Your task to perform on an android device: Open wifi settings Image 0: 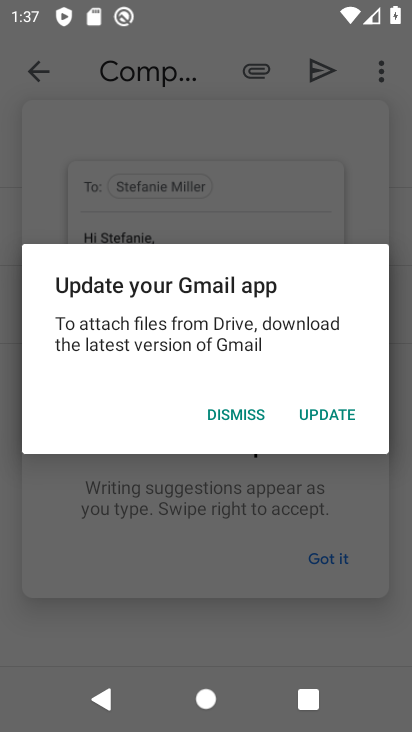
Step 0: press home button
Your task to perform on an android device: Open wifi settings Image 1: 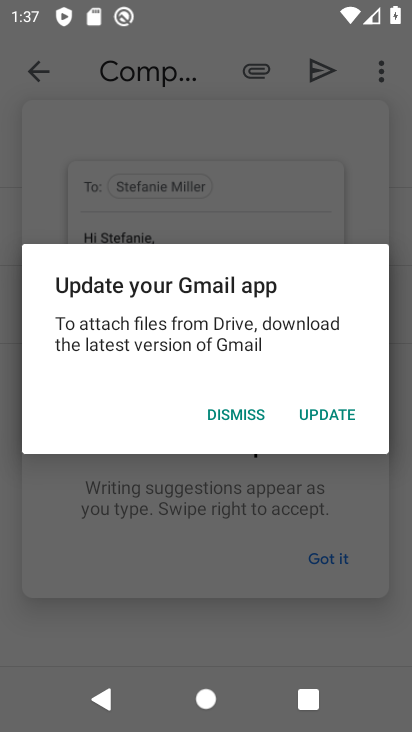
Step 1: drag from (163, 563) to (147, 33)
Your task to perform on an android device: Open wifi settings Image 2: 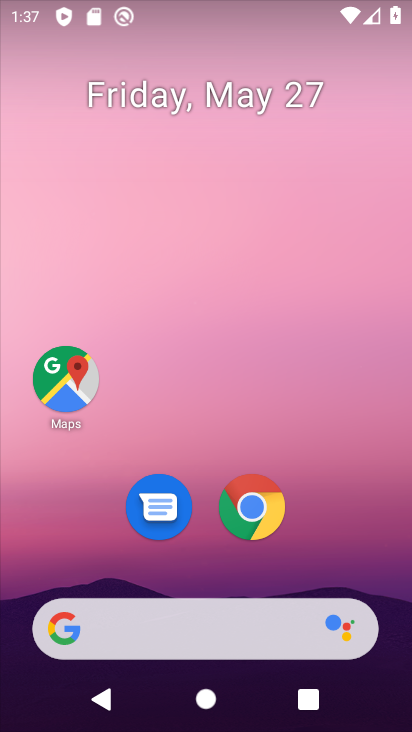
Step 2: drag from (207, 554) to (244, 153)
Your task to perform on an android device: Open wifi settings Image 3: 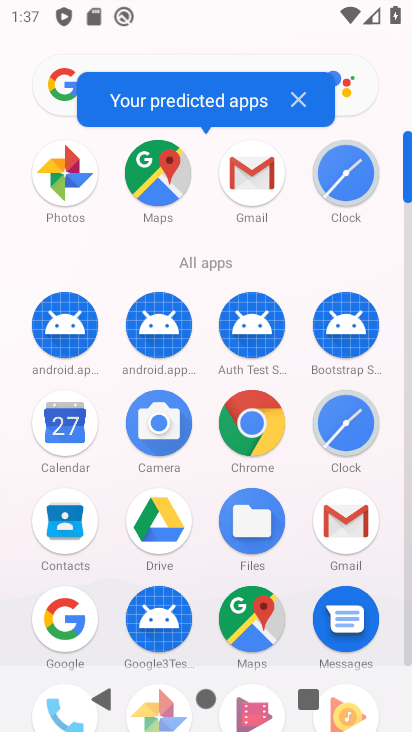
Step 3: drag from (182, 568) to (237, 211)
Your task to perform on an android device: Open wifi settings Image 4: 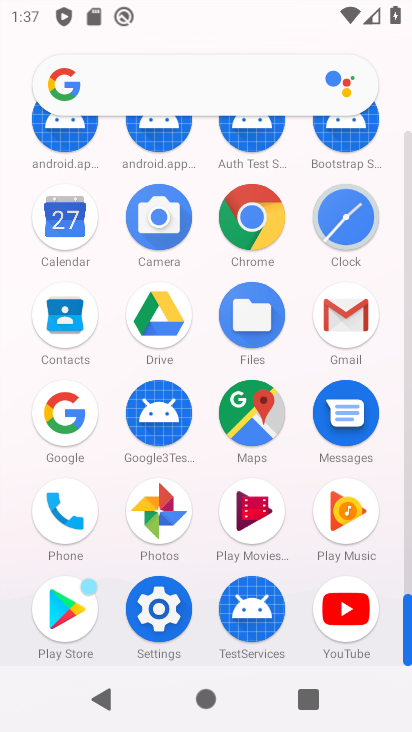
Step 4: click (147, 632)
Your task to perform on an android device: Open wifi settings Image 5: 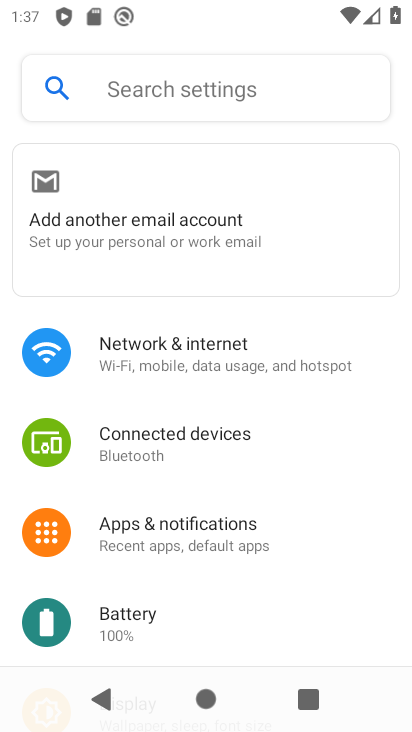
Step 5: click (119, 346)
Your task to perform on an android device: Open wifi settings Image 6: 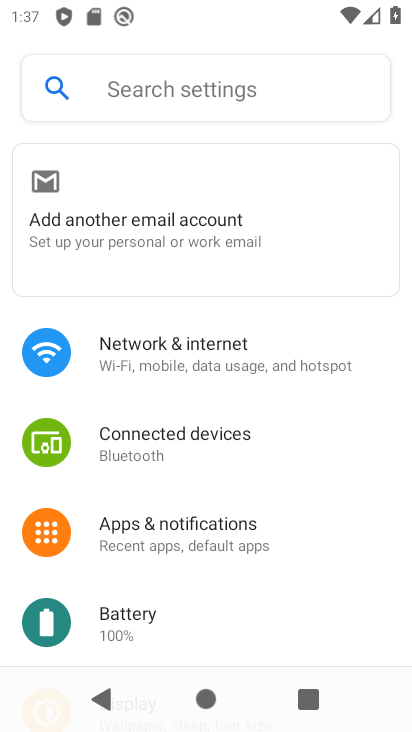
Step 6: click (119, 346)
Your task to perform on an android device: Open wifi settings Image 7: 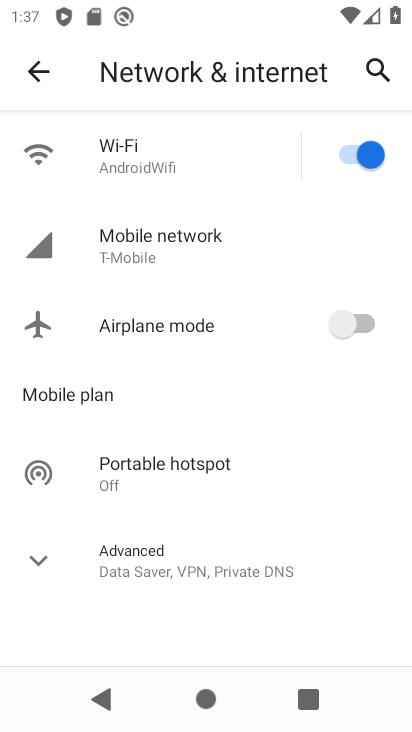
Step 7: click (198, 162)
Your task to perform on an android device: Open wifi settings Image 8: 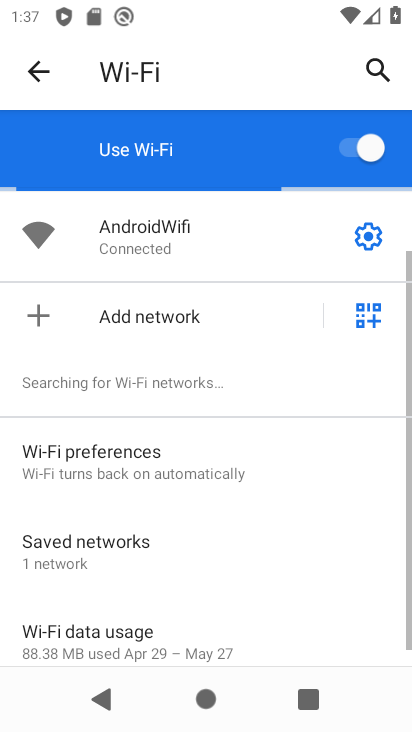
Step 8: task complete